Your task to perform on an android device: turn on location history Image 0: 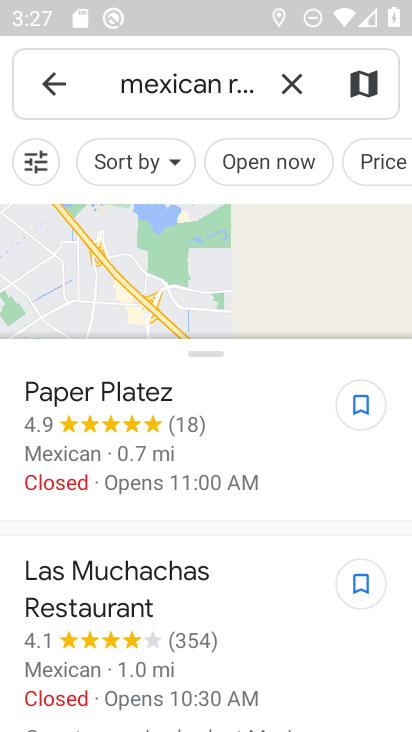
Step 0: press home button
Your task to perform on an android device: turn on location history Image 1: 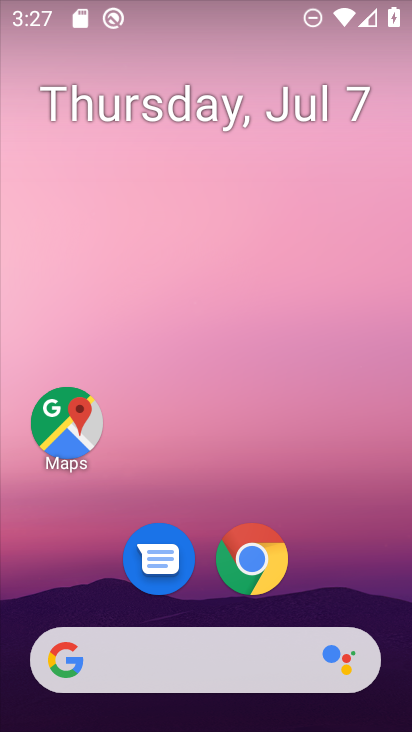
Step 1: drag from (372, 576) to (372, 262)
Your task to perform on an android device: turn on location history Image 2: 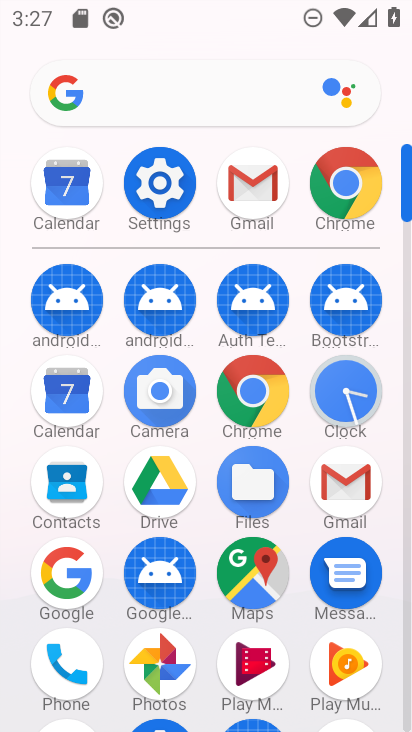
Step 2: click (184, 206)
Your task to perform on an android device: turn on location history Image 3: 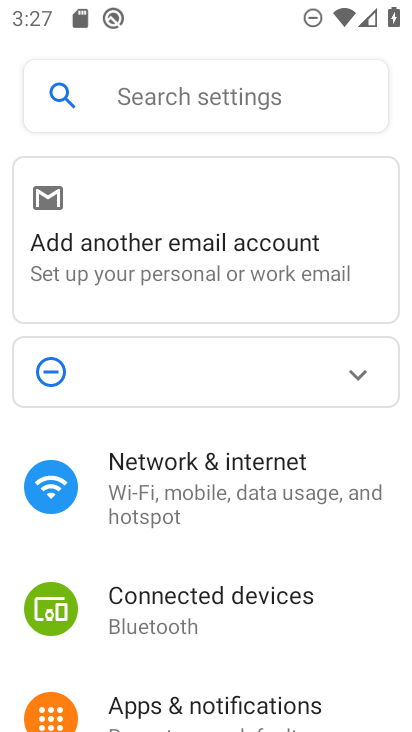
Step 3: drag from (366, 647) to (370, 576)
Your task to perform on an android device: turn on location history Image 4: 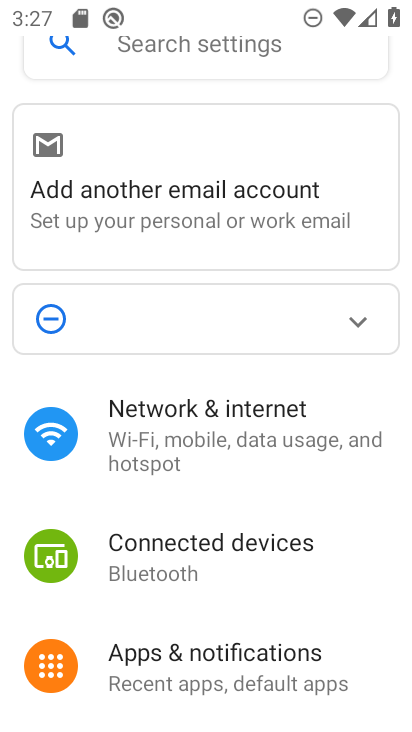
Step 4: drag from (363, 656) to (357, 532)
Your task to perform on an android device: turn on location history Image 5: 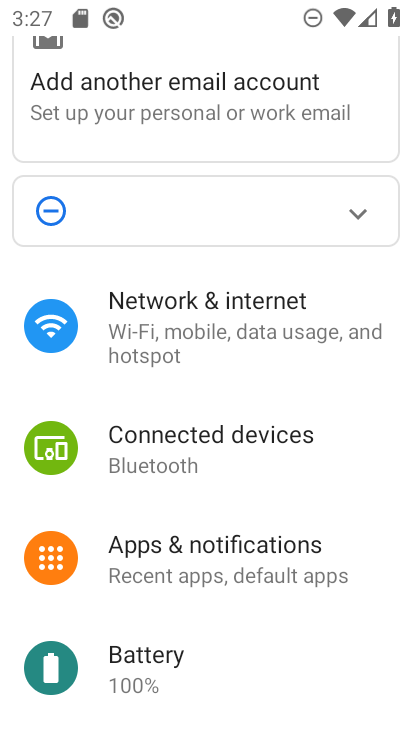
Step 5: drag from (355, 635) to (354, 533)
Your task to perform on an android device: turn on location history Image 6: 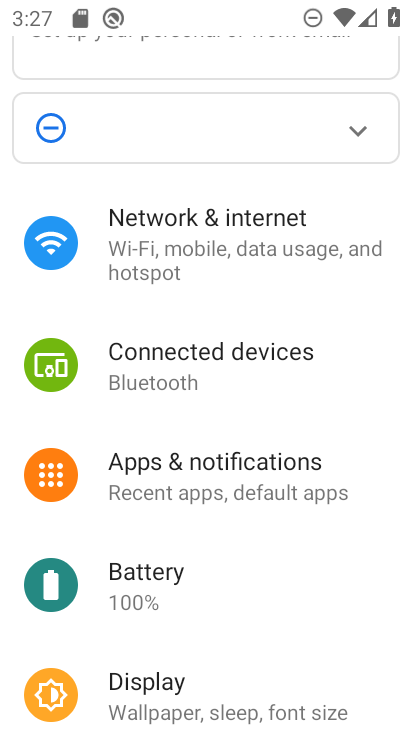
Step 6: drag from (346, 618) to (362, 452)
Your task to perform on an android device: turn on location history Image 7: 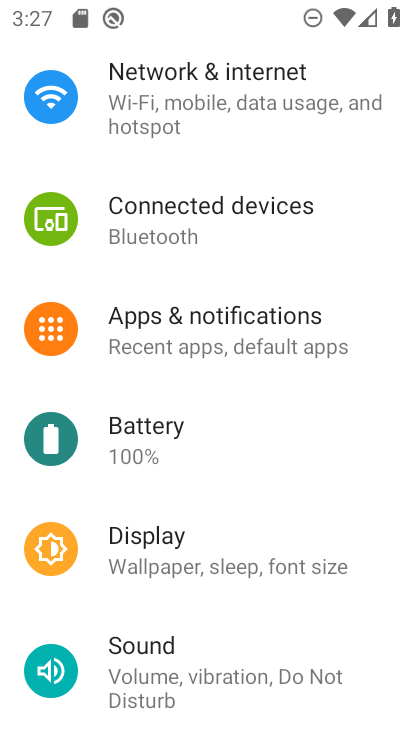
Step 7: drag from (370, 611) to (378, 472)
Your task to perform on an android device: turn on location history Image 8: 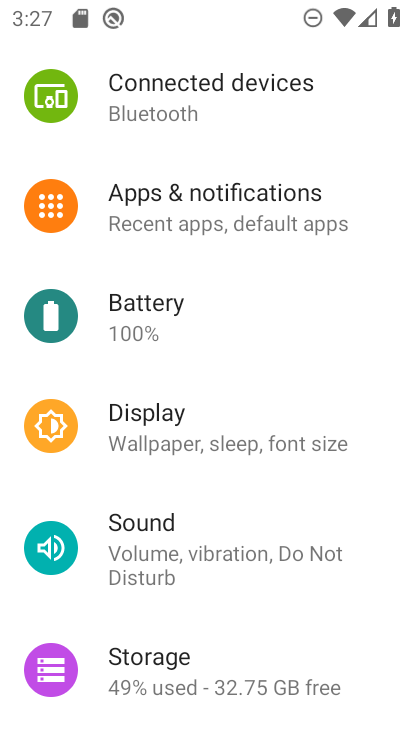
Step 8: drag from (368, 603) to (371, 456)
Your task to perform on an android device: turn on location history Image 9: 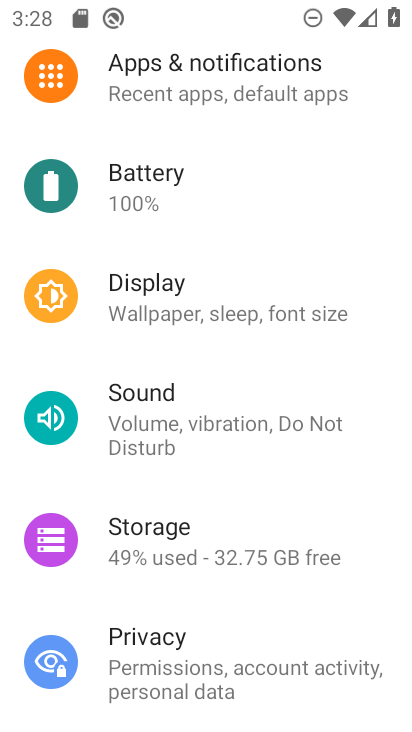
Step 9: drag from (363, 588) to (360, 404)
Your task to perform on an android device: turn on location history Image 10: 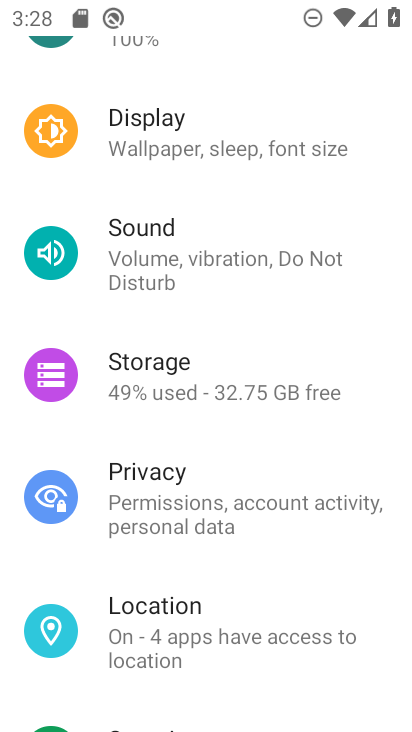
Step 10: drag from (372, 571) to (367, 429)
Your task to perform on an android device: turn on location history Image 11: 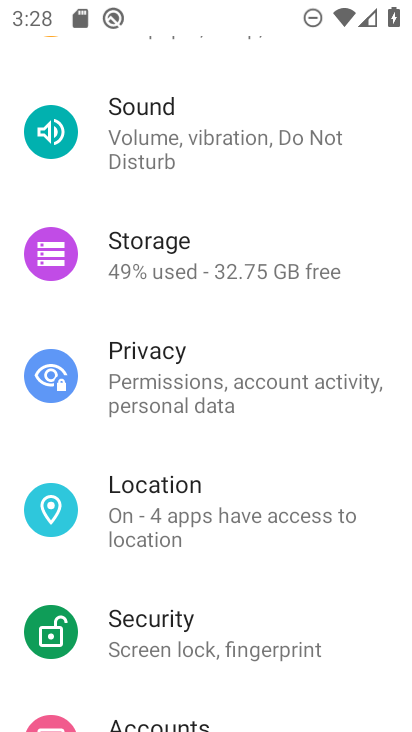
Step 11: drag from (380, 588) to (370, 472)
Your task to perform on an android device: turn on location history Image 12: 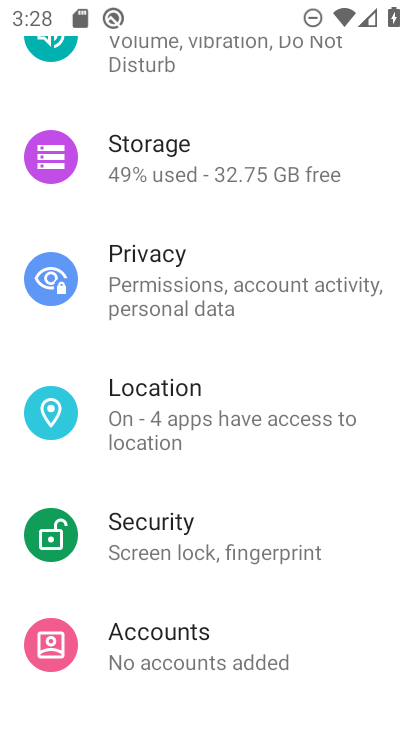
Step 12: click (290, 426)
Your task to perform on an android device: turn on location history Image 13: 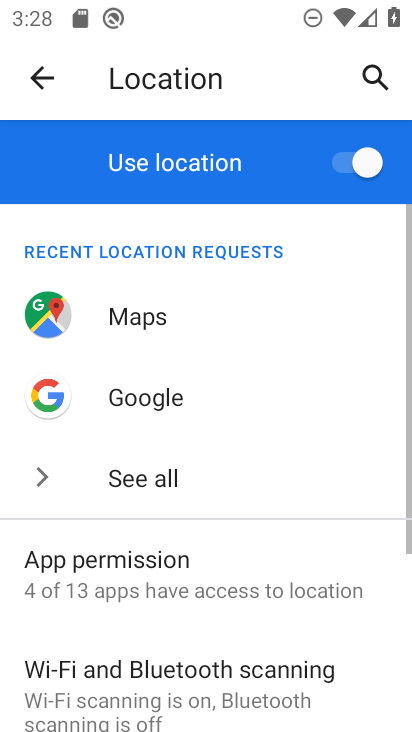
Step 13: drag from (352, 539) to (350, 425)
Your task to perform on an android device: turn on location history Image 14: 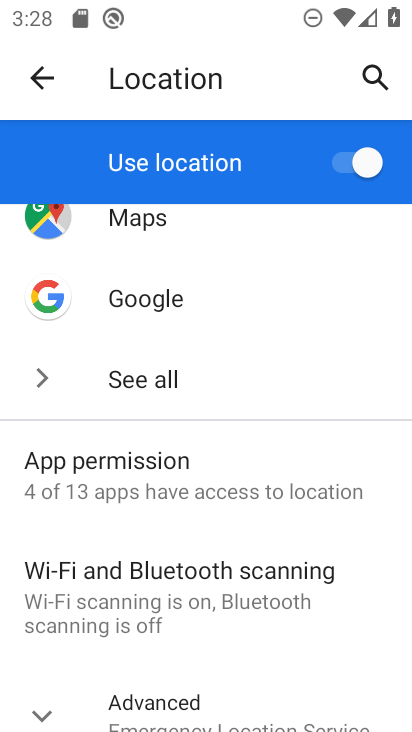
Step 14: drag from (364, 562) to (355, 381)
Your task to perform on an android device: turn on location history Image 15: 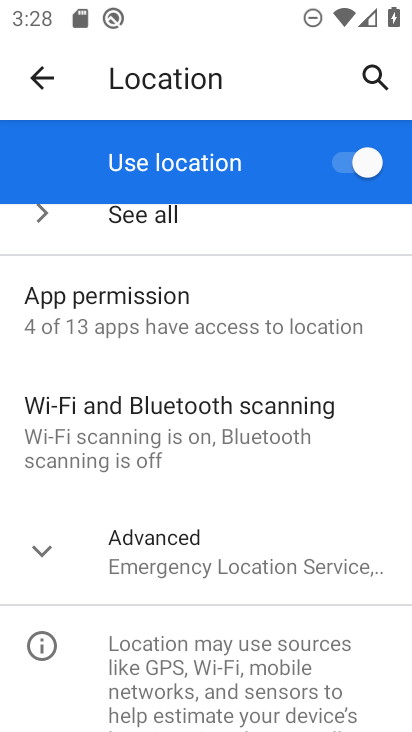
Step 15: drag from (374, 606) to (390, 423)
Your task to perform on an android device: turn on location history Image 16: 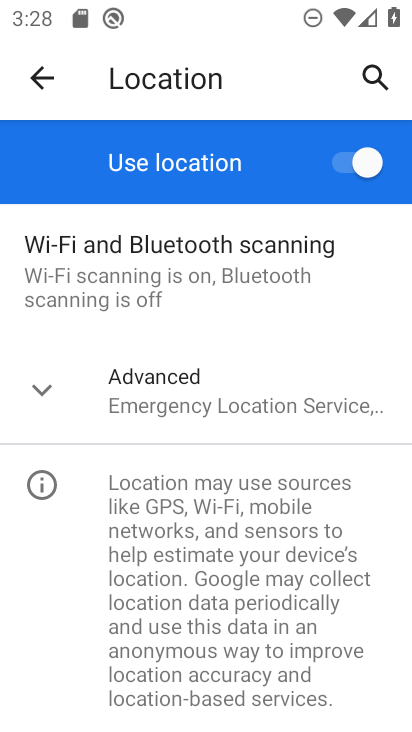
Step 16: click (344, 414)
Your task to perform on an android device: turn on location history Image 17: 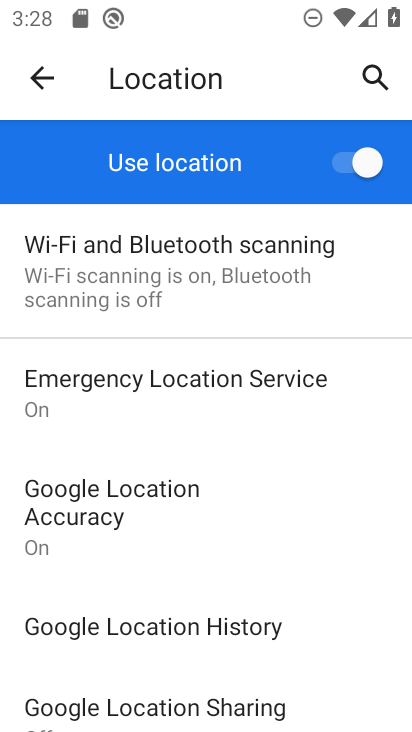
Step 17: drag from (335, 552) to (339, 442)
Your task to perform on an android device: turn on location history Image 18: 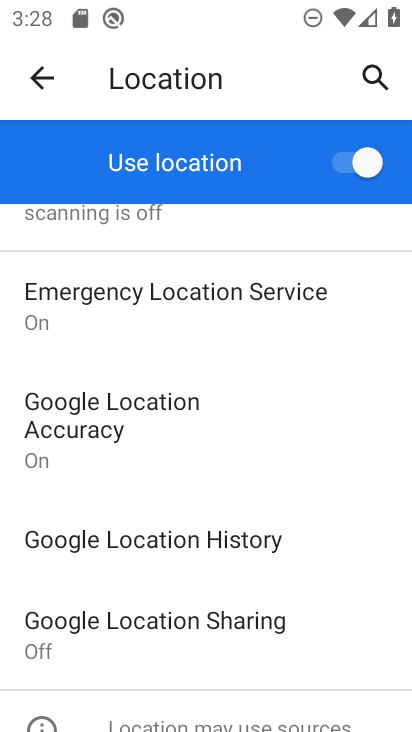
Step 18: click (258, 537)
Your task to perform on an android device: turn on location history Image 19: 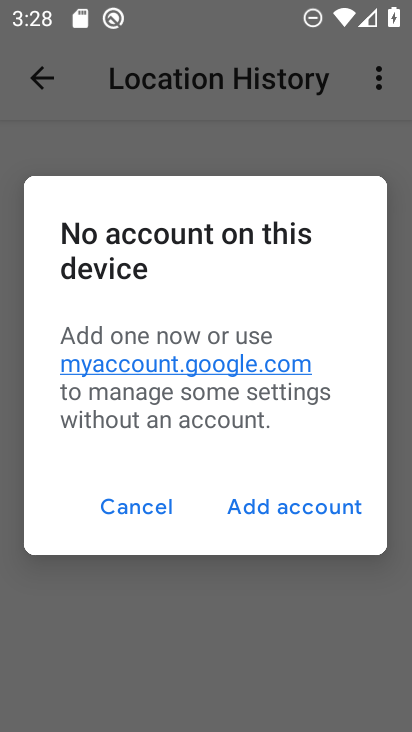
Step 19: click (151, 515)
Your task to perform on an android device: turn on location history Image 20: 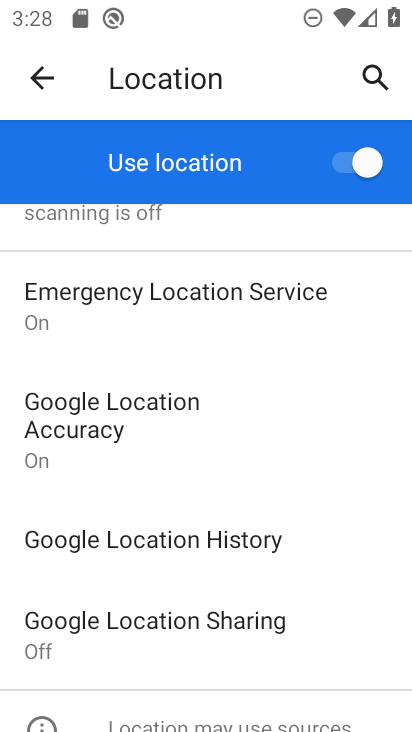
Step 20: task complete